Your task to perform on an android device: turn off location history Image 0: 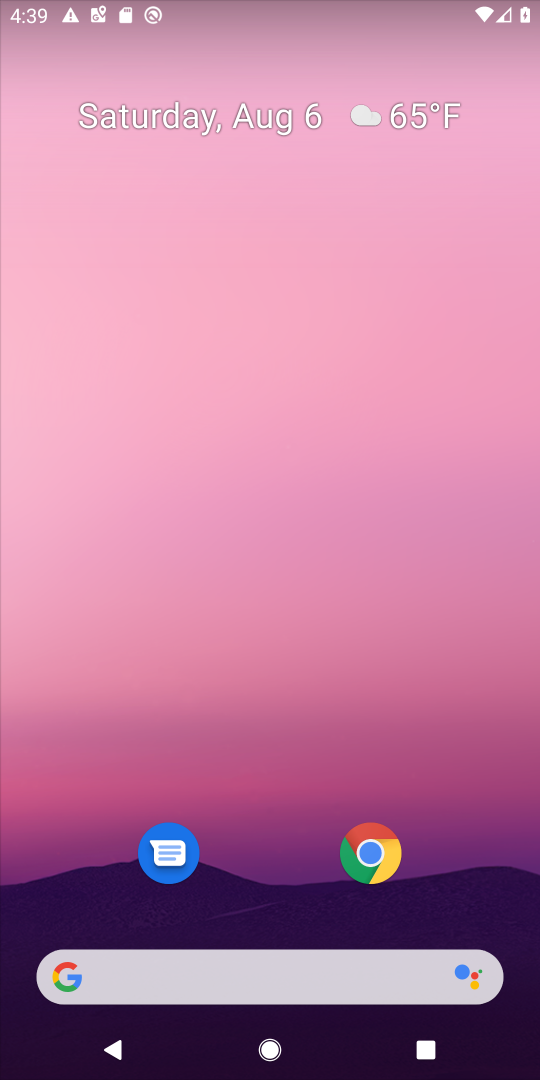
Step 0: drag from (221, 894) to (468, 1)
Your task to perform on an android device: turn off location history Image 1: 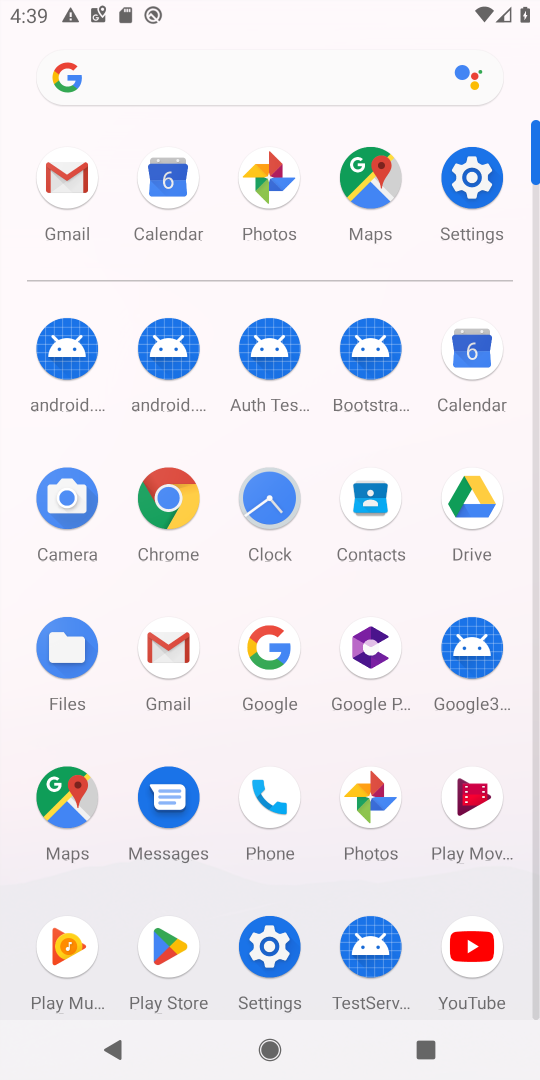
Step 1: click (474, 179)
Your task to perform on an android device: turn off location history Image 2: 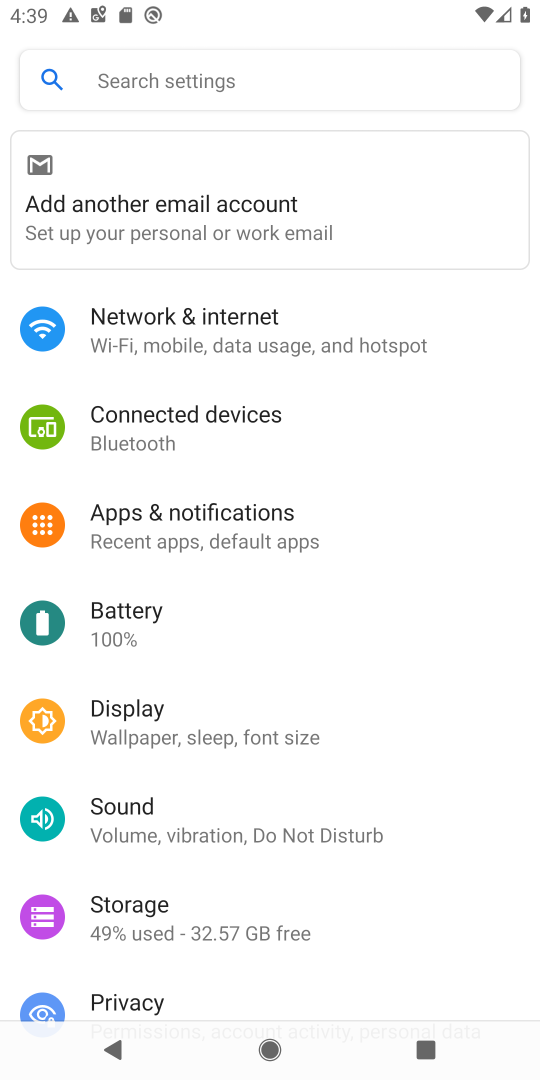
Step 2: drag from (138, 980) to (257, 71)
Your task to perform on an android device: turn off location history Image 3: 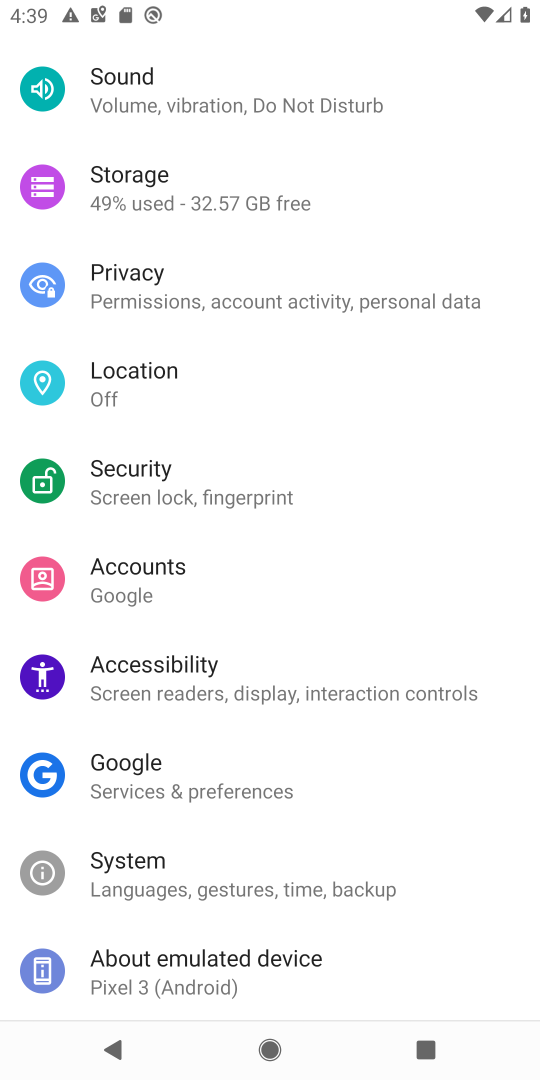
Step 3: click (207, 396)
Your task to perform on an android device: turn off location history Image 4: 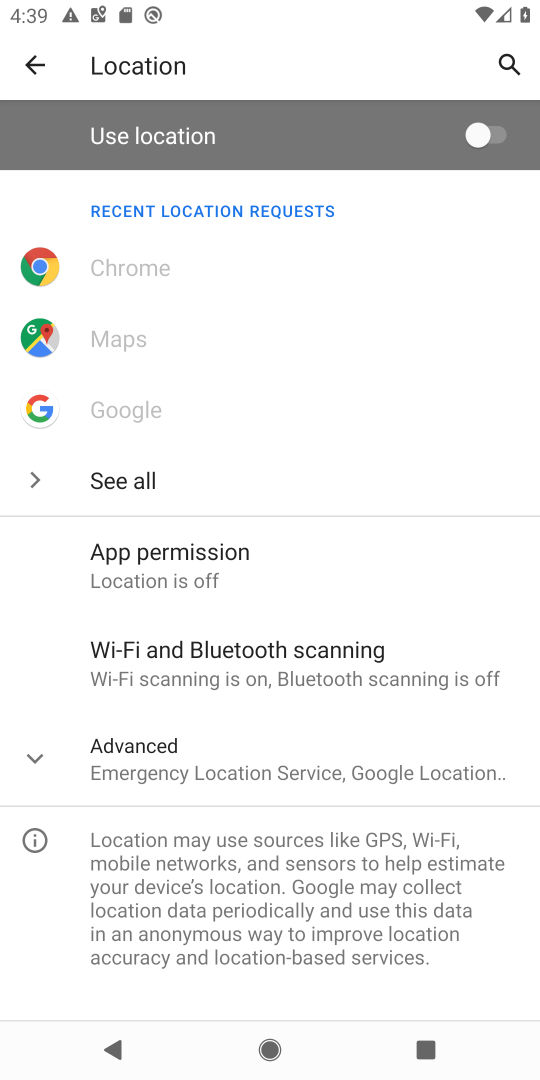
Step 4: click (234, 749)
Your task to perform on an android device: turn off location history Image 5: 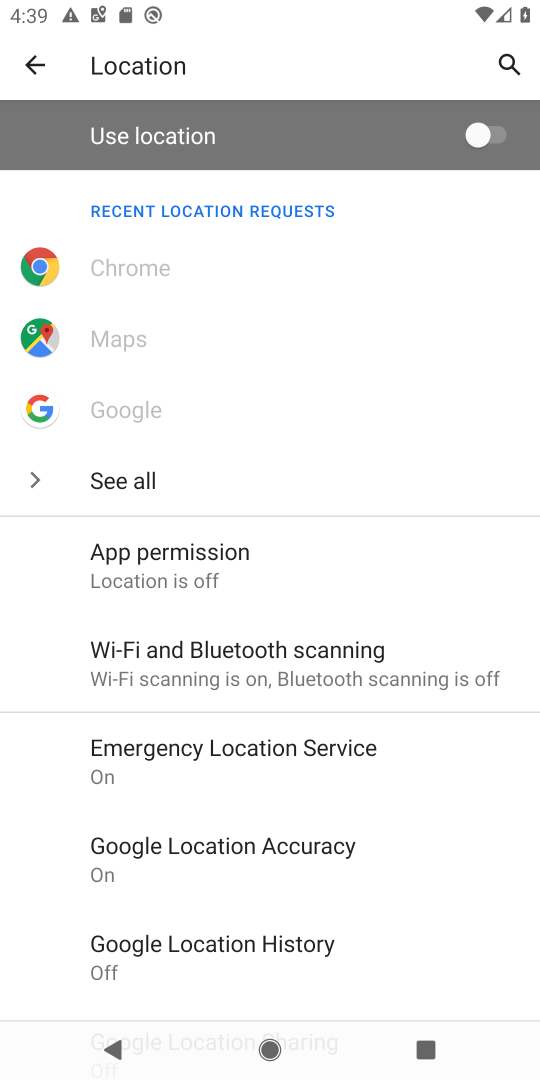
Step 5: click (147, 950)
Your task to perform on an android device: turn off location history Image 6: 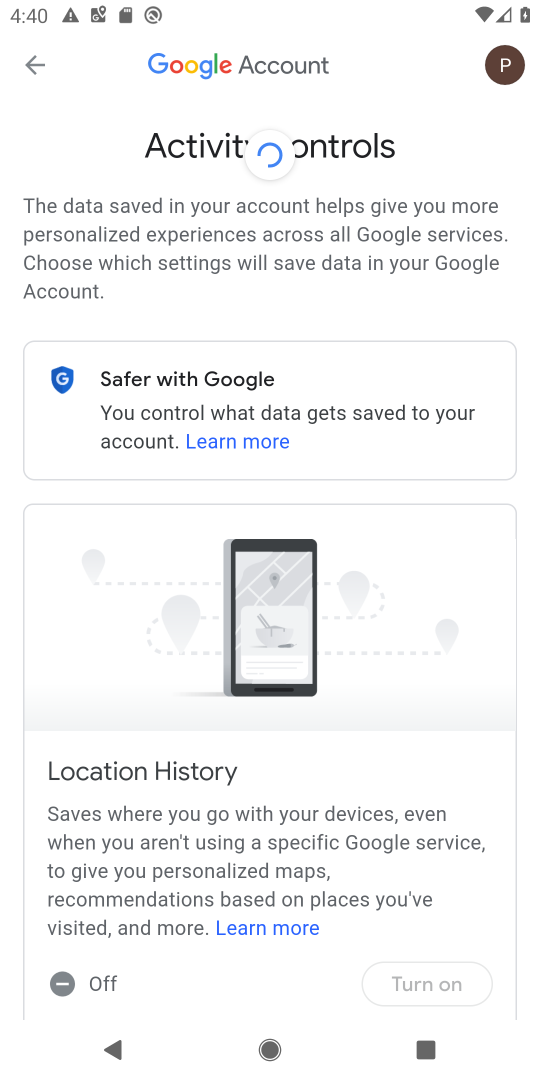
Step 6: task complete